Your task to perform on an android device: toggle sleep mode Image 0: 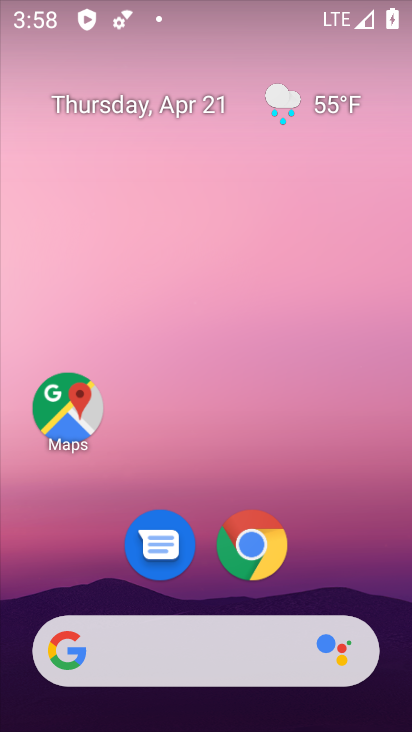
Step 0: drag from (241, 619) to (265, 36)
Your task to perform on an android device: toggle sleep mode Image 1: 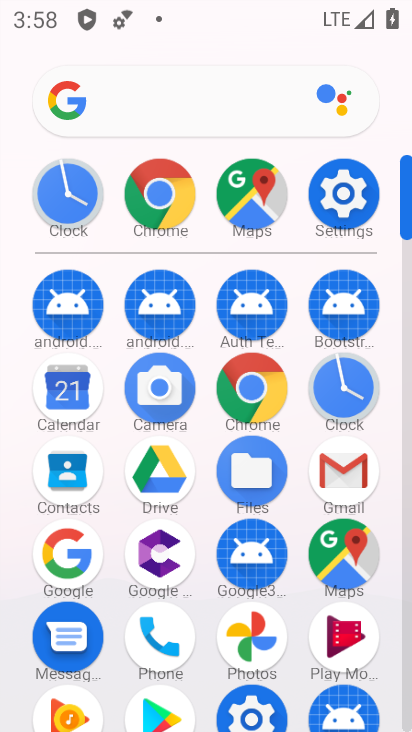
Step 1: click (337, 178)
Your task to perform on an android device: toggle sleep mode Image 2: 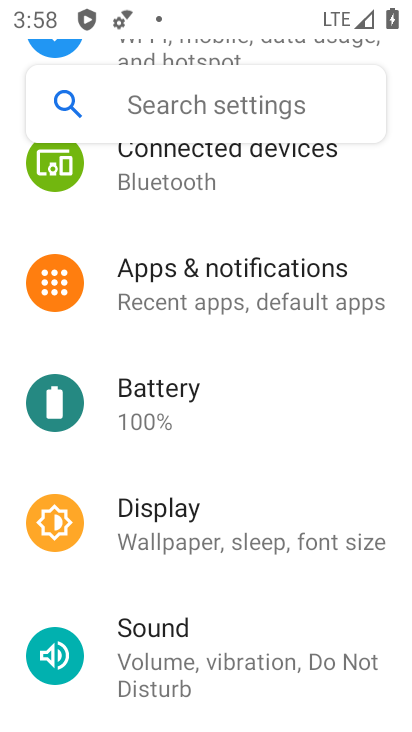
Step 2: click (205, 515)
Your task to perform on an android device: toggle sleep mode Image 3: 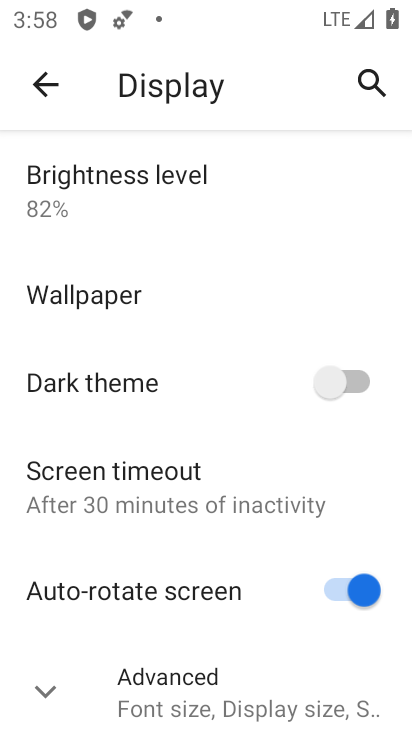
Step 3: drag from (228, 558) to (185, 68)
Your task to perform on an android device: toggle sleep mode Image 4: 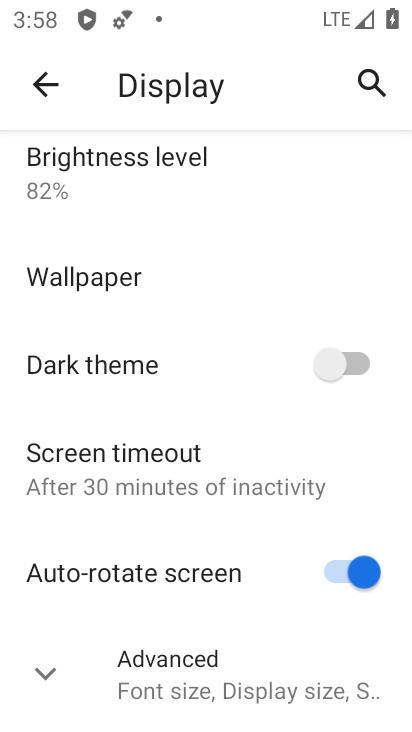
Step 4: click (195, 694)
Your task to perform on an android device: toggle sleep mode Image 5: 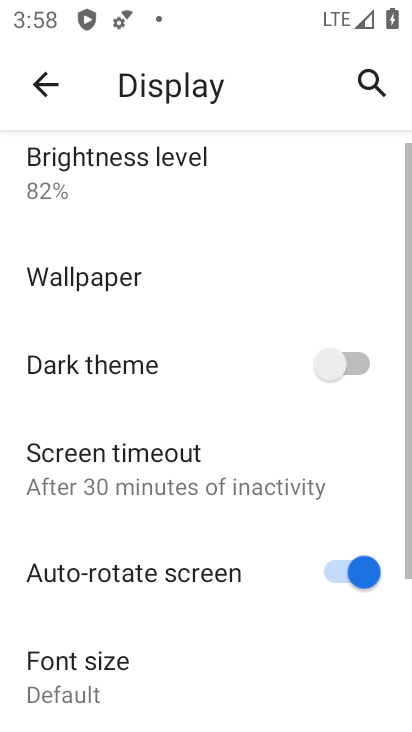
Step 5: task complete